Your task to perform on an android device: find snoozed emails in the gmail app Image 0: 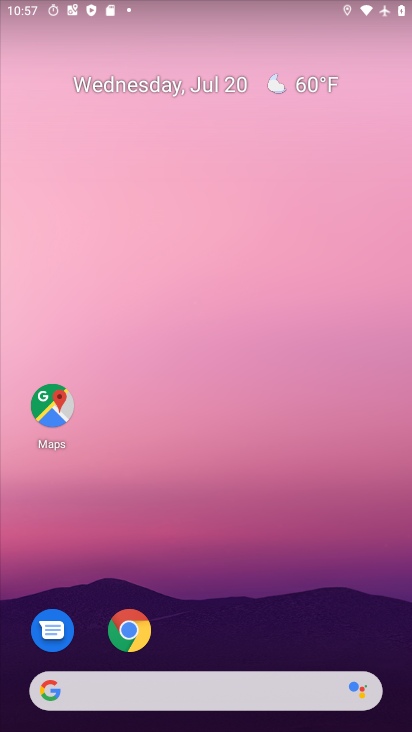
Step 0: drag from (283, 516) to (294, 74)
Your task to perform on an android device: find snoozed emails in the gmail app Image 1: 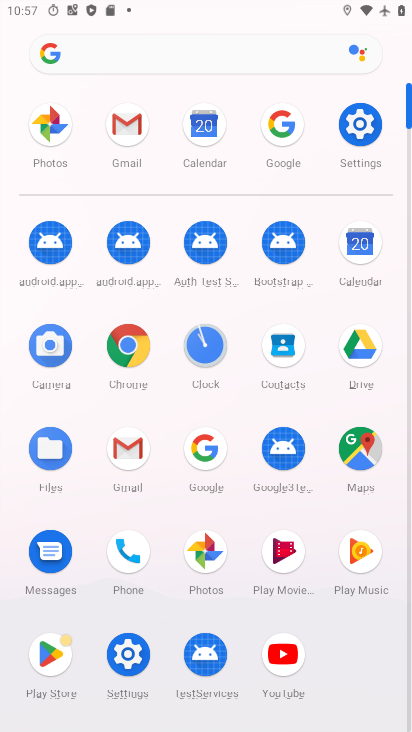
Step 1: click (127, 127)
Your task to perform on an android device: find snoozed emails in the gmail app Image 2: 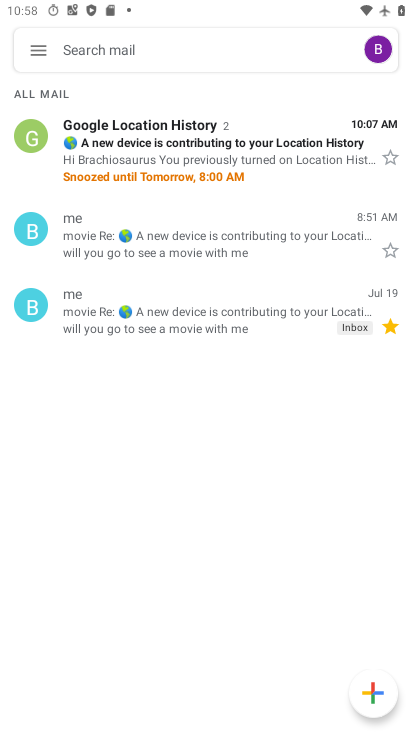
Step 2: click (34, 54)
Your task to perform on an android device: find snoozed emails in the gmail app Image 3: 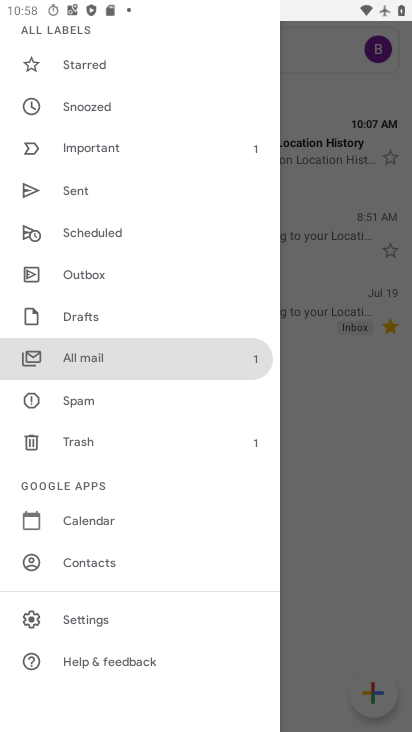
Step 3: click (85, 111)
Your task to perform on an android device: find snoozed emails in the gmail app Image 4: 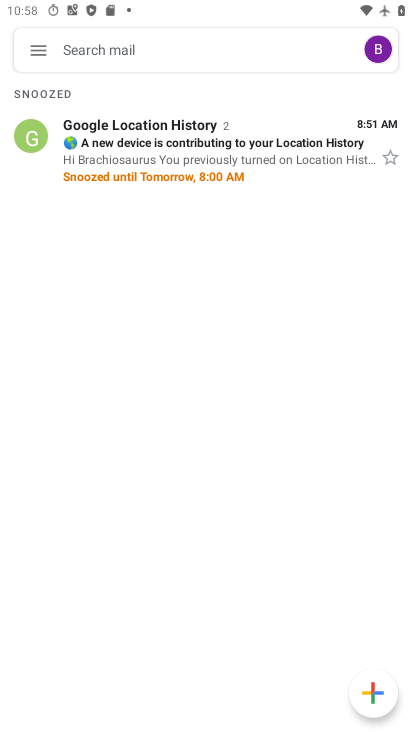
Step 4: task complete